Your task to perform on an android device: clear all cookies in the chrome app Image 0: 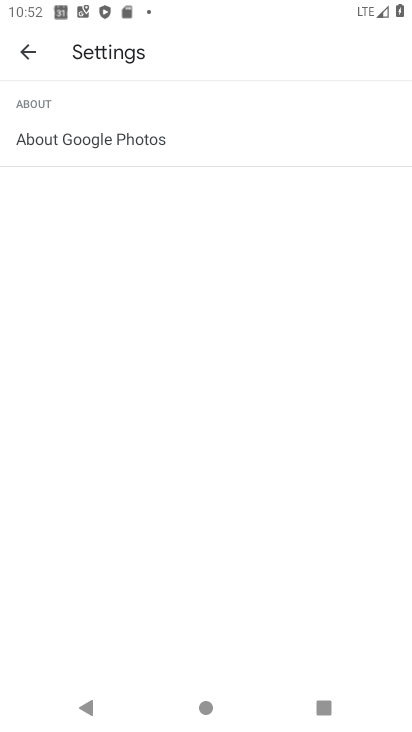
Step 0: press home button
Your task to perform on an android device: clear all cookies in the chrome app Image 1: 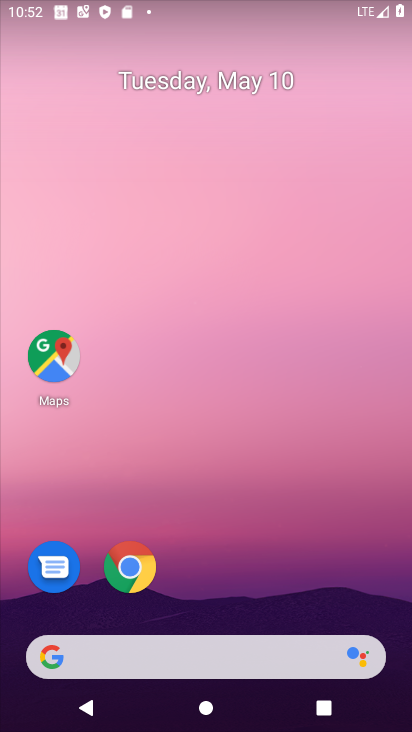
Step 1: click (133, 565)
Your task to perform on an android device: clear all cookies in the chrome app Image 2: 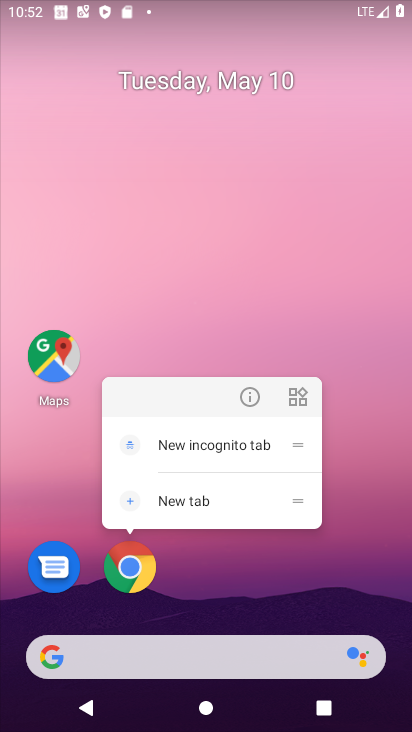
Step 2: click (119, 558)
Your task to perform on an android device: clear all cookies in the chrome app Image 3: 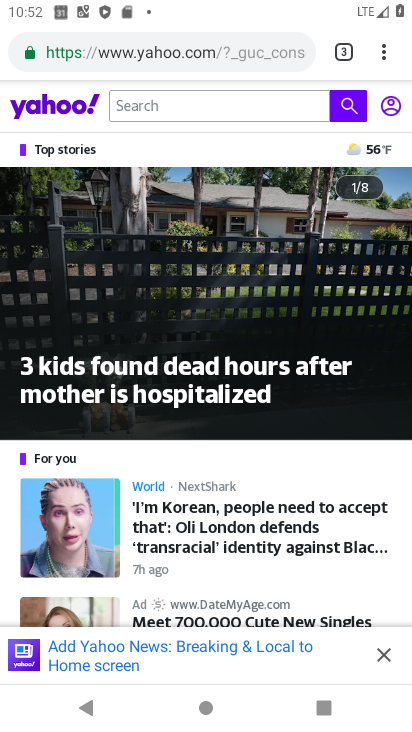
Step 3: click (370, 53)
Your task to perform on an android device: clear all cookies in the chrome app Image 4: 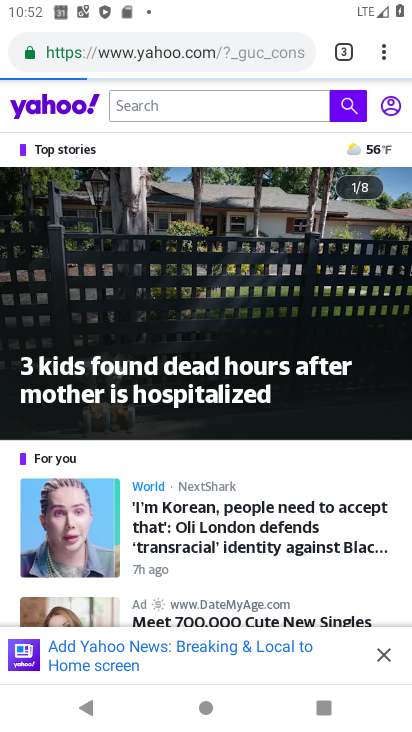
Step 4: click (386, 43)
Your task to perform on an android device: clear all cookies in the chrome app Image 5: 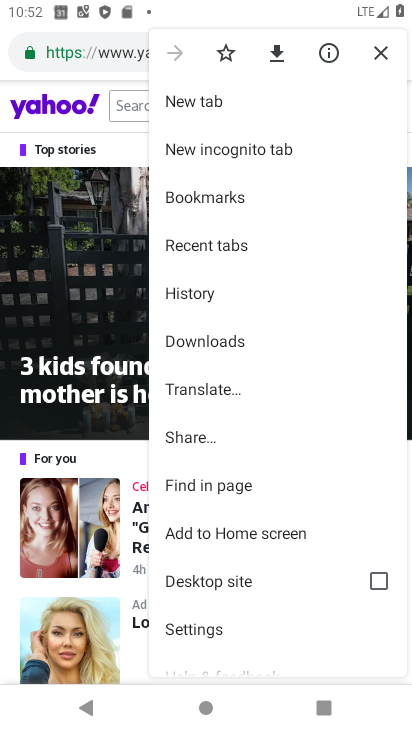
Step 5: click (215, 623)
Your task to perform on an android device: clear all cookies in the chrome app Image 6: 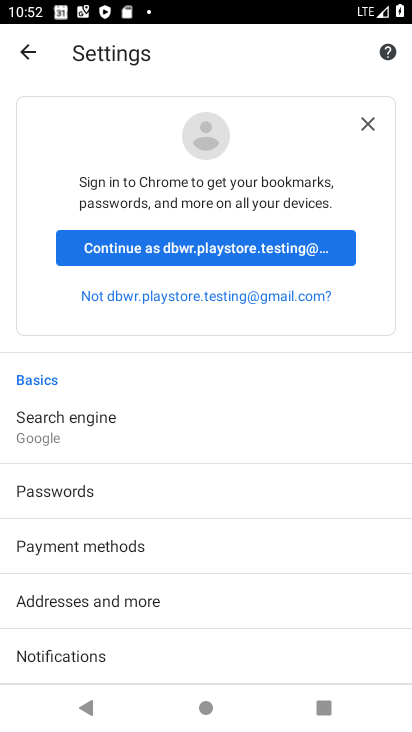
Step 6: click (363, 125)
Your task to perform on an android device: clear all cookies in the chrome app Image 7: 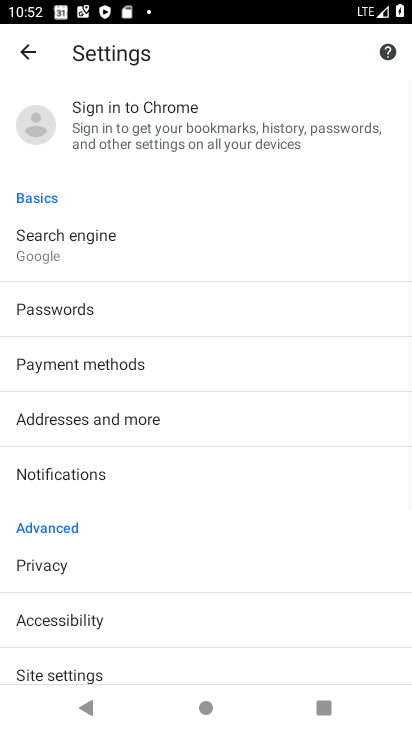
Step 7: click (119, 558)
Your task to perform on an android device: clear all cookies in the chrome app Image 8: 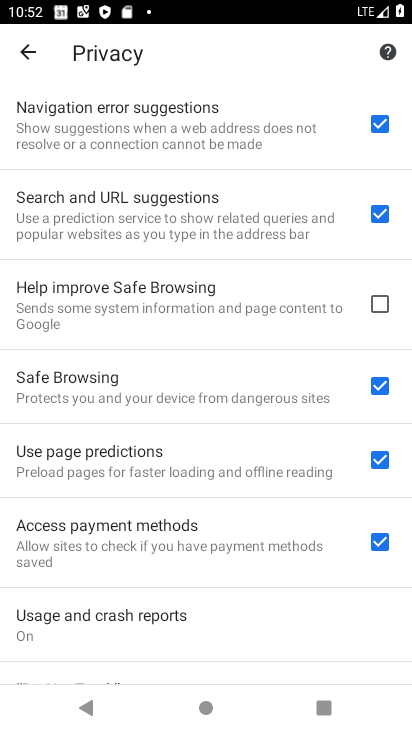
Step 8: press back button
Your task to perform on an android device: clear all cookies in the chrome app Image 9: 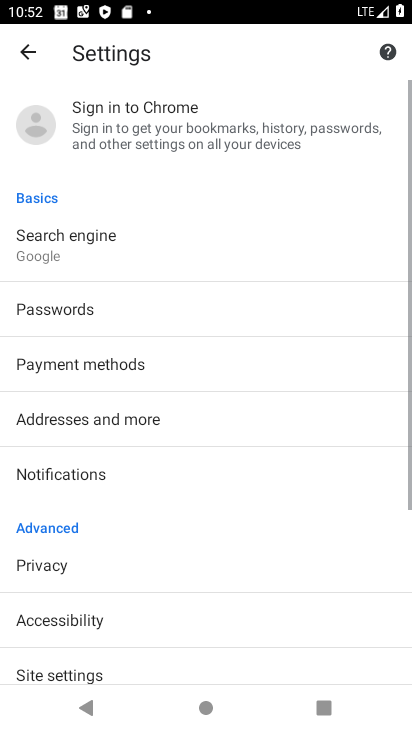
Step 9: drag from (93, 635) to (211, 148)
Your task to perform on an android device: clear all cookies in the chrome app Image 10: 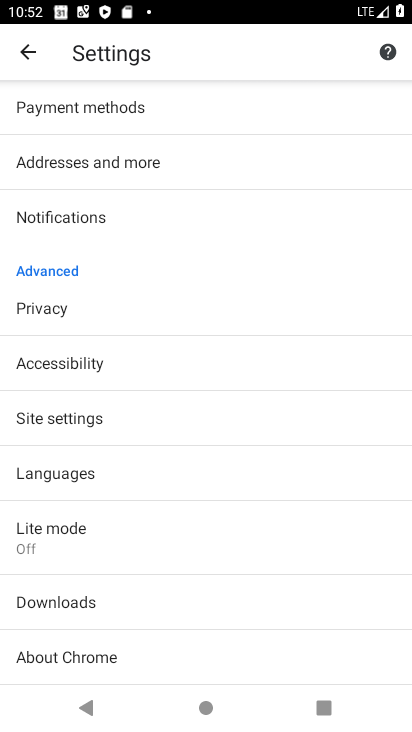
Step 10: click (124, 414)
Your task to perform on an android device: clear all cookies in the chrome app Image 11: 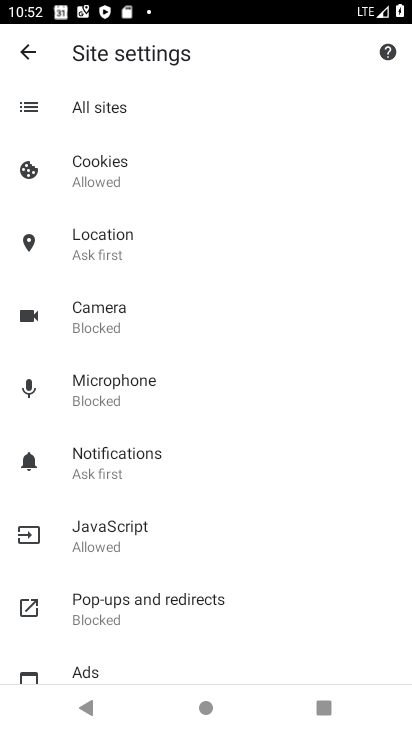
Step 11: press back button
Your task to perform on an android device: clear all cookies in the chrome app Image 12: 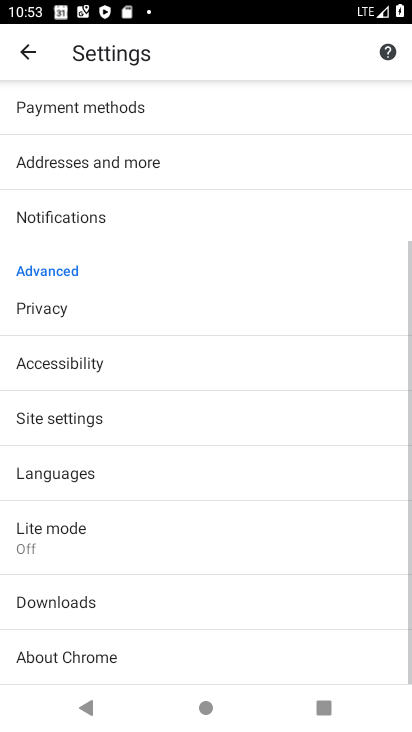
Step 12: drag from (194, 140) to (94, 723)
Your task to perform on an android device: clear all cookies in the chrome app Image 13: 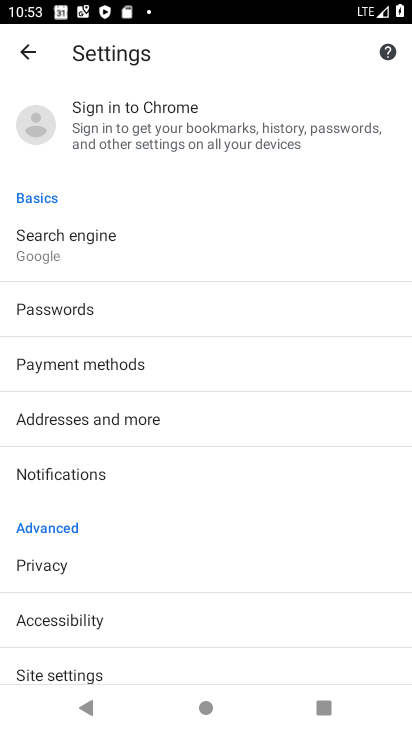
Step 13: drag from (103, 671) to (187, 289)
Your task to perform on an android device: clear all cookies in the chrome app Image 14: 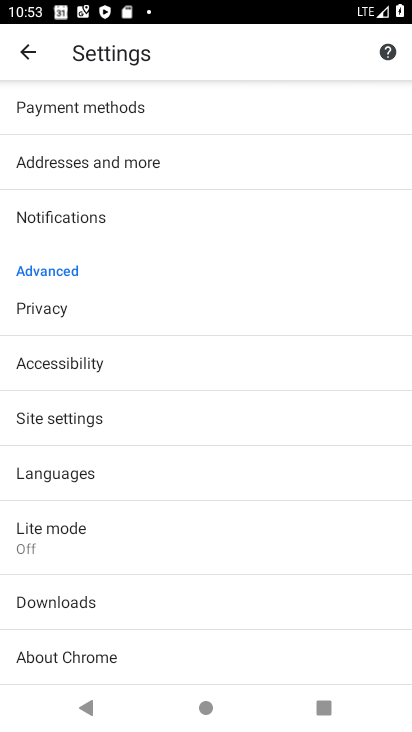
Step 14: click (20, 318)
Your task to perform on an android device: clear all cookies in the chrome app Image 15: 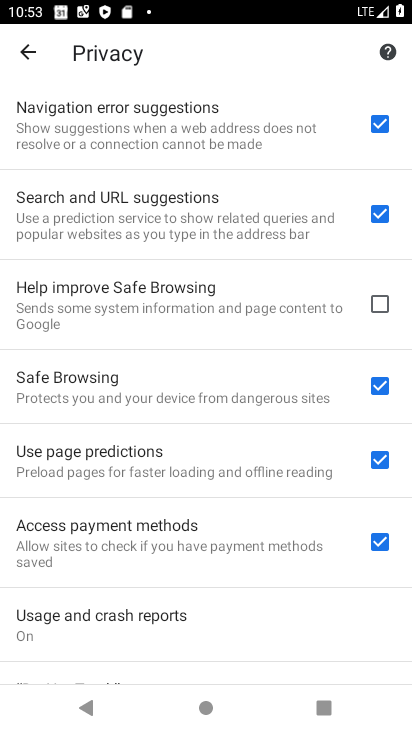
Step 15: drag from (143, 609) to (288, 83)
Your task to perform on an android device: clear all cookies in the chrome app Image 16: 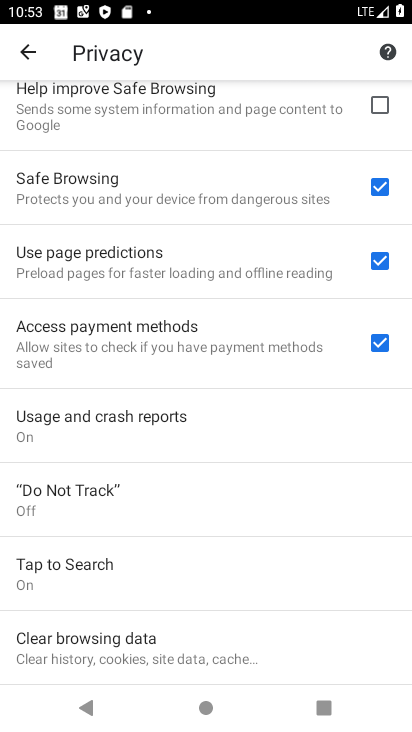
Step 16: click (165, 641)
Your task to perform on an android device: clear all cookies in the chrome app Image 17: 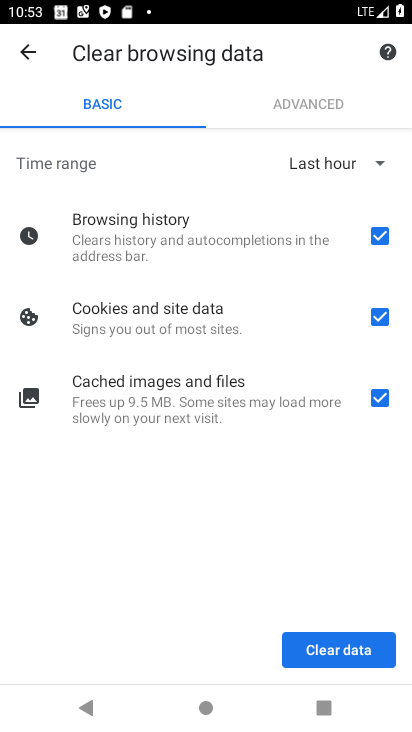
Step 17: click (369, 240)
Your task to perform on an android device: clear all cookies in the chrome app Image 18: 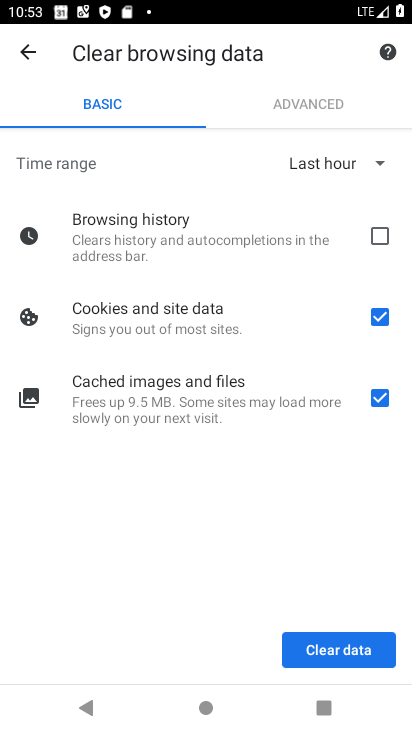
Step 18: click (356, 657)
Your task to perform on an android device: clear all cookies in the chrome app Image 19: 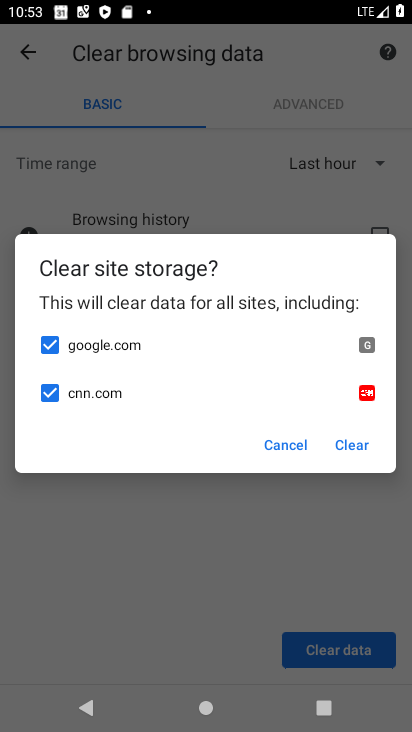
Step 19: click (335, 441)
Your task to perform on an android device: clear all cookies in the chrome app Image 20: 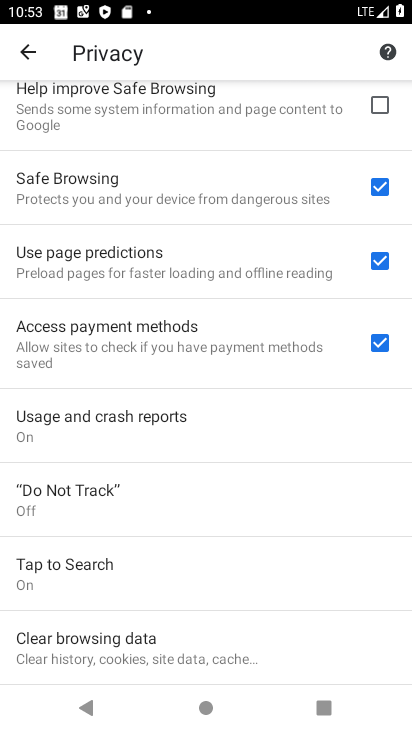
Step 20: task complete